Your task to perform on an android device: turn on javascript in the chrome app Image 0: 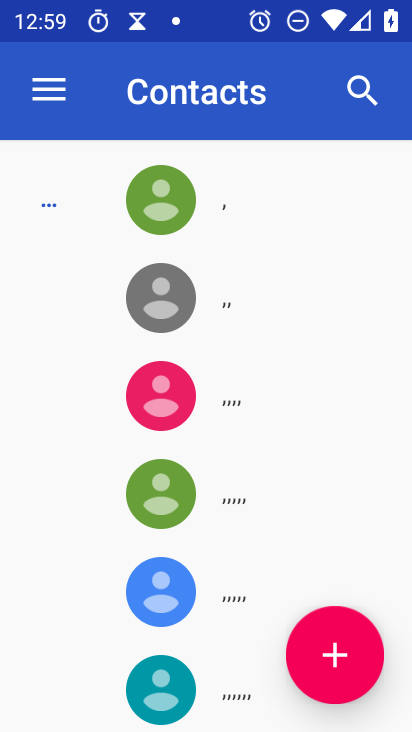
Step 0: press home button
Your task to perform on an android device: turn on javascript in the chrome app Image 1: 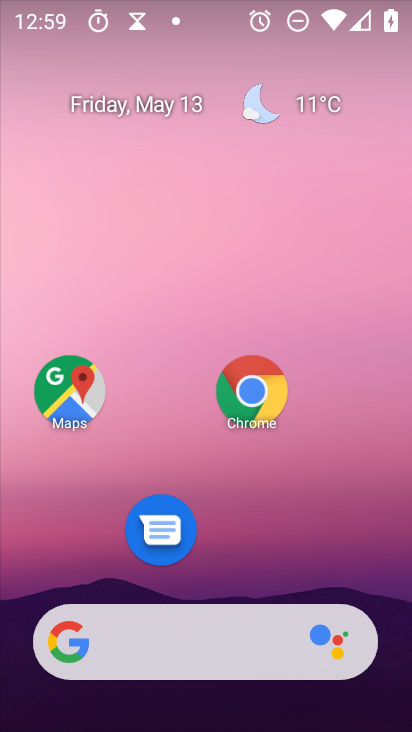
Step 1: click (254, 397)
Your task to perform on an android device: turn on javascript in the chrome app Image 2: 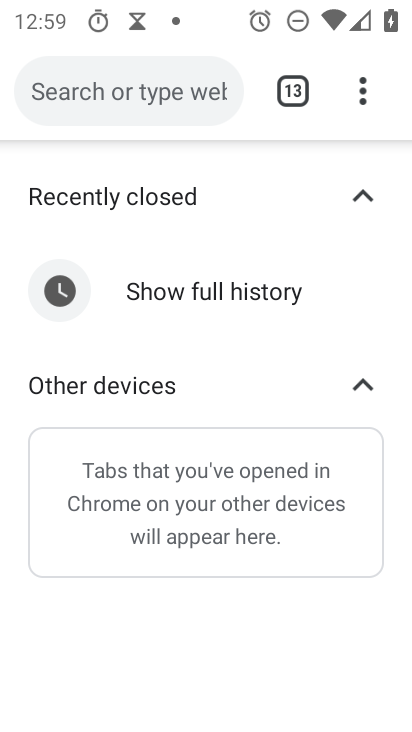
Step 2: drag from (359, 96) to (186, 565)
Your task to perform on an android device: turn on javascript in the chrome app Image 3: 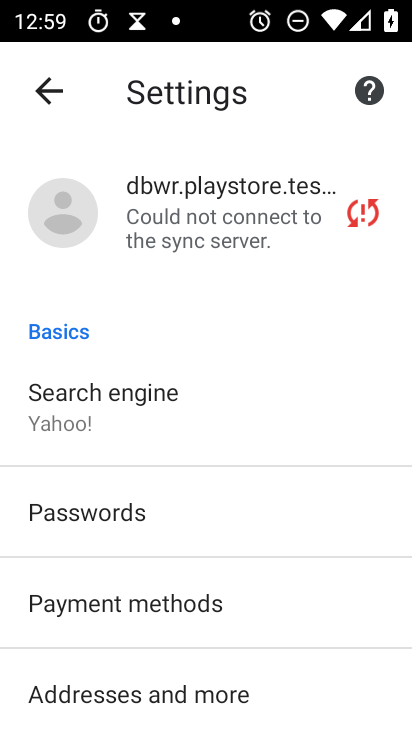
Step 3: drag from (191, 640) to (261, 359)
Your task to perform on an android device: turn on javascript in the chrome app Image 4: 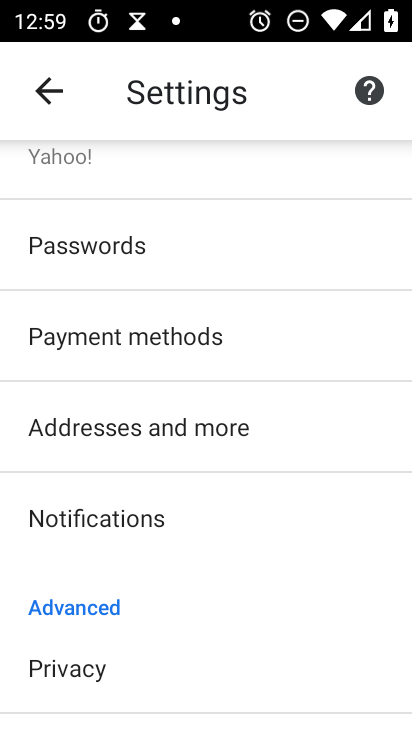
Step 4: drag from (164, 662) to (259, 332)
Your task to perform on an android device: turn on javascript in the chrome app Image 5: 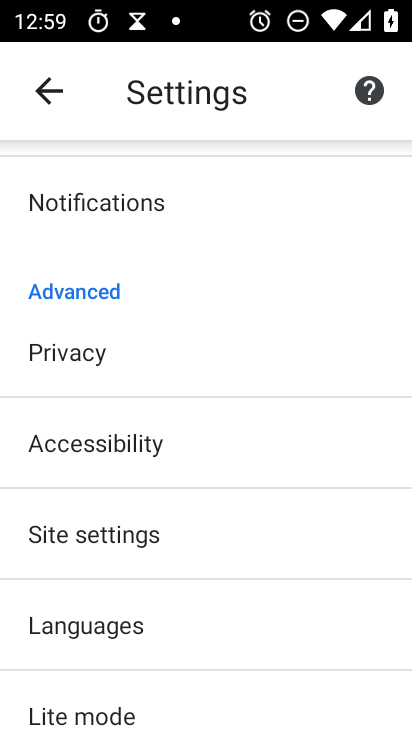
Step 5: click (148, 537)
Your task to perform on an android device: turn on javascript in the chrome app Image 6: 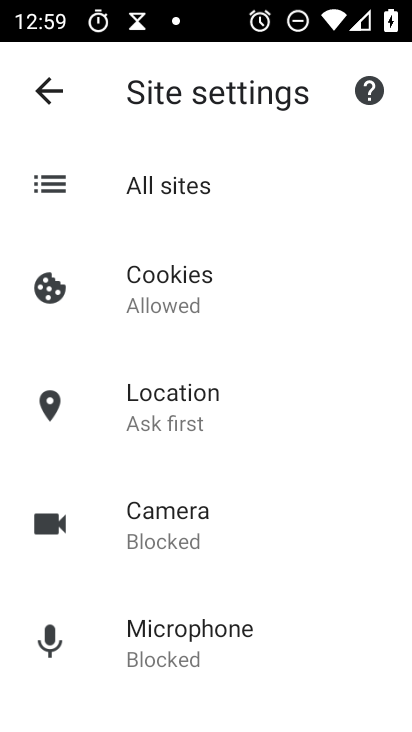
Step 6: drag from (215, 613) to (308, 212)
Your task to perform on an android device: turn on javascript in the chrome app Image 7: 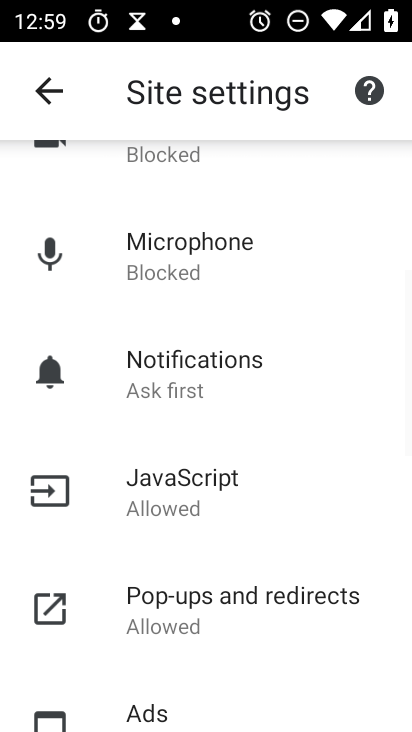
Step 7: click (181, 494)
Your task to perform on an android device: turn on javascript in the chrome app Image 8: 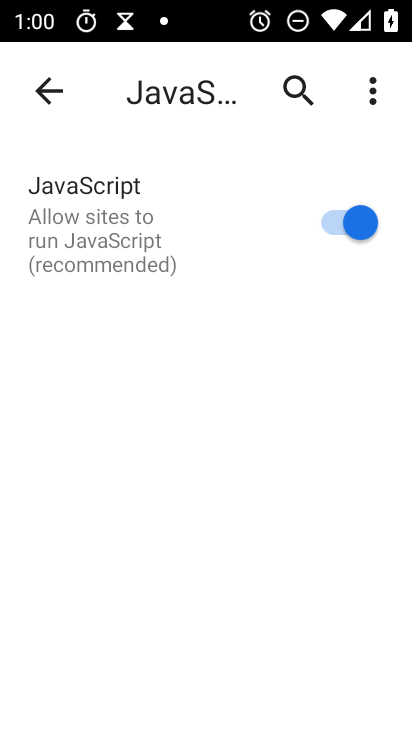
Step 8: task complete